Your task to perform on an android device: Open maps Image 0: 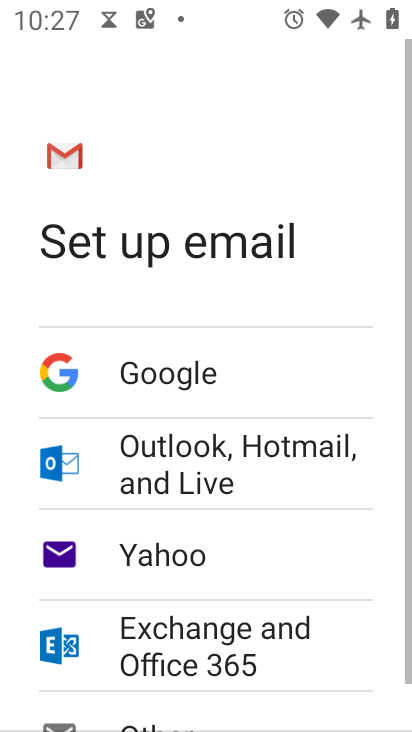
Step 0: press home button
Your task to perform on an android device: Open maps Image 1: 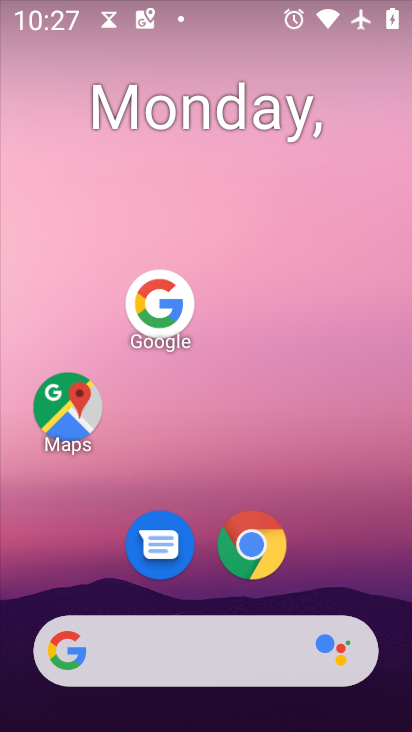
Step 1: click (75, 410)
Your task to perform on an android device: Open maps Image 2: 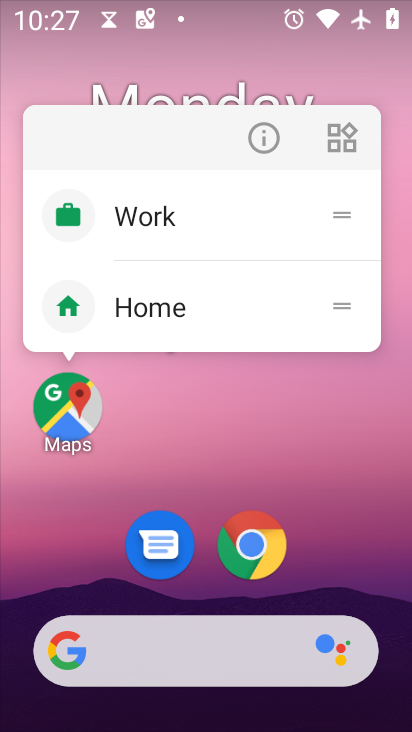
Step 2: click (71, 424)
Your task to perform on an android device: Open maps Image 3: 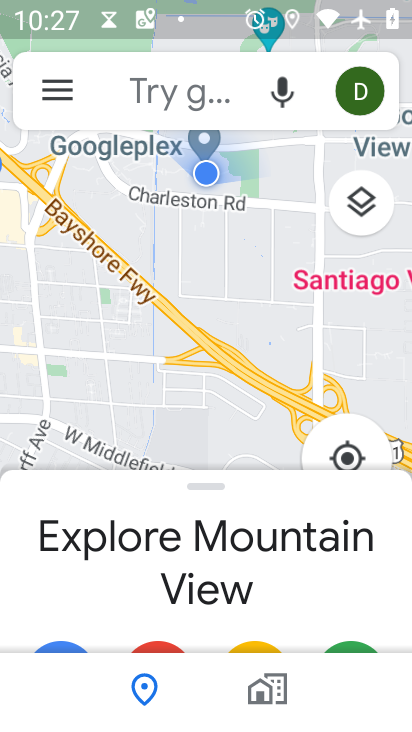
Step 3: task complete